Your task to perform on an android device: Go to calendar. Show me events next week Image 0: 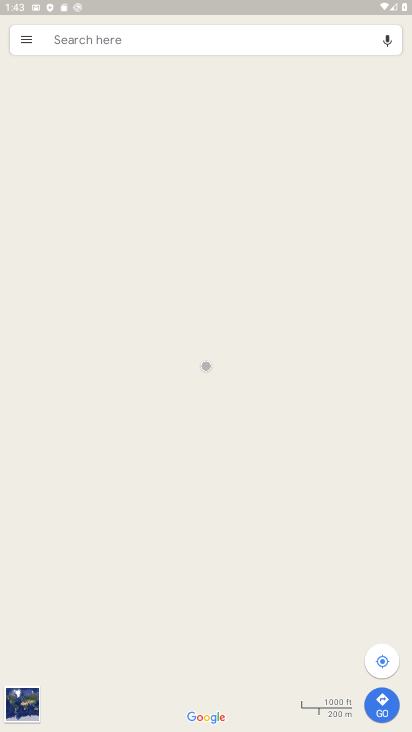
Step 0: press home button
Your task to perform on an android device: Go to calendar. Show me events next week Image 1: 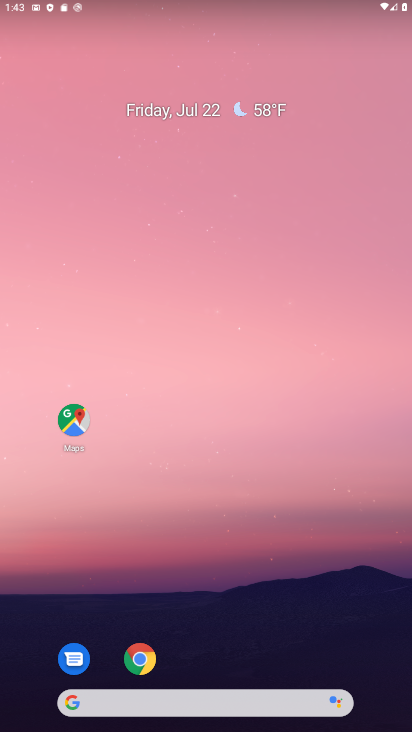
Step 1: drag from (231, 671) to (197, 101)
Your task to perform on an android device: Go to calendar. Show me events next week Image 2: 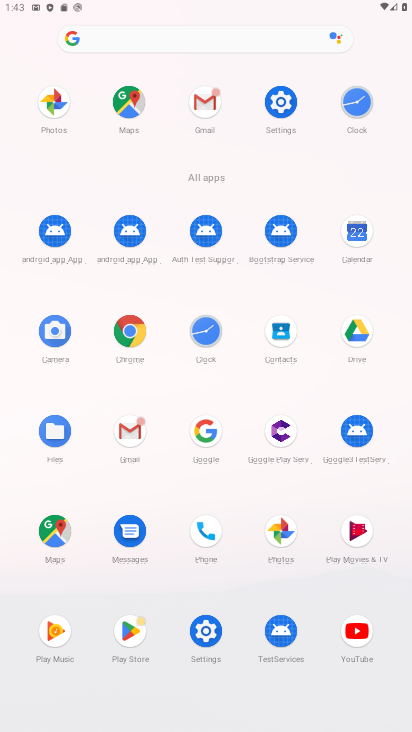
Step 2: click (353, 239)
Your task to perform on an android device: Go to calendar. Show me events next week Image 3: 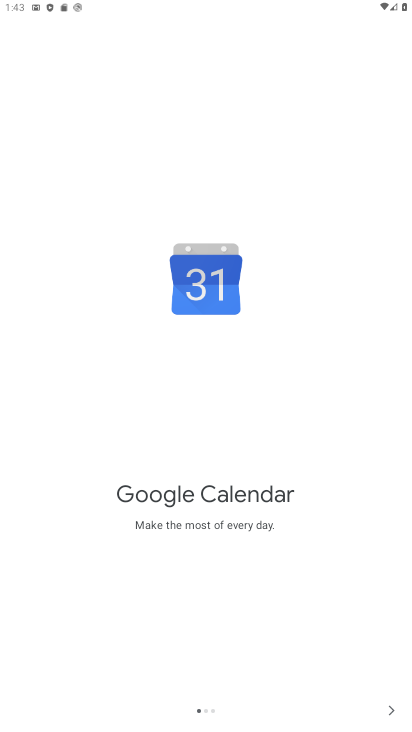
Step 3: click (379, 715)
Your task to perform on an android device: Go to calendar. Show me events next week Image 4: 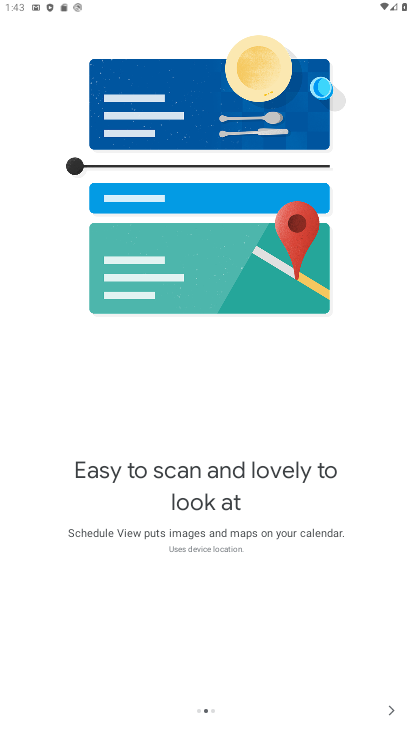
Step 4: click (378, 711)
Your task to perform on an android device: Go to calendar. Show me events next week Image 5: 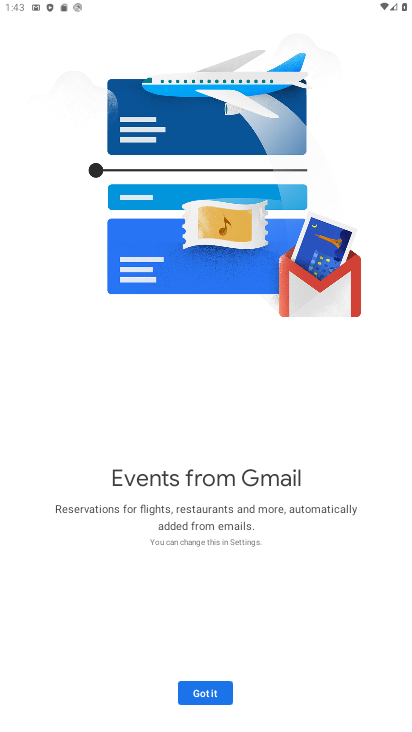
Step 5: click (213, 697)
Your task to perform on an android device: Go to calendar. Show me events next week Image 6: 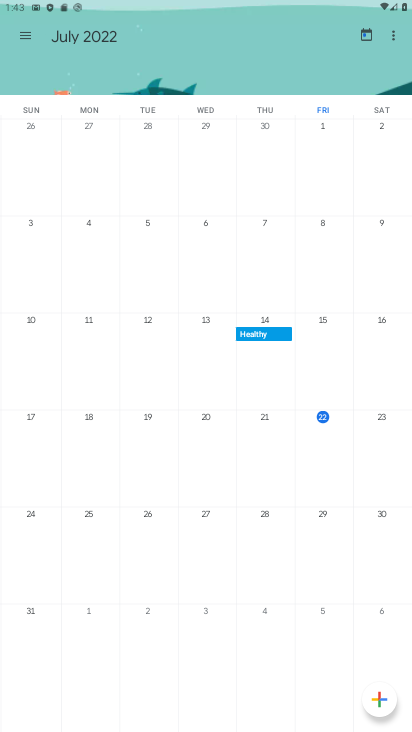
Step 6: click (25, 32)
Your task to perform on an android device: Go to calendar. Show me events next week Image 7: 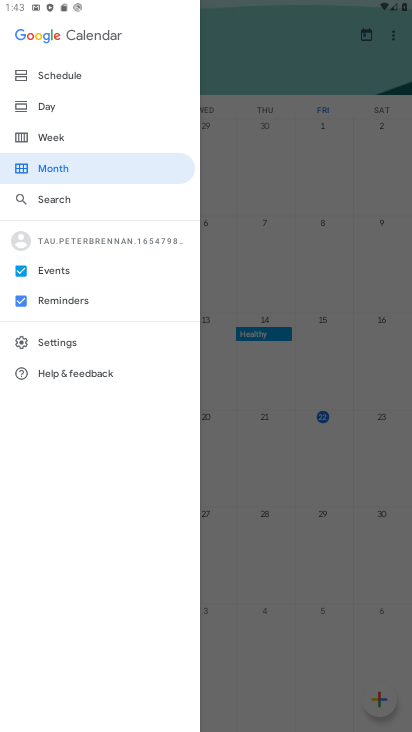
Step 7: click (62, 135)
Your task to perform on an android device: Go to calendar. Show me events next week Image 8: 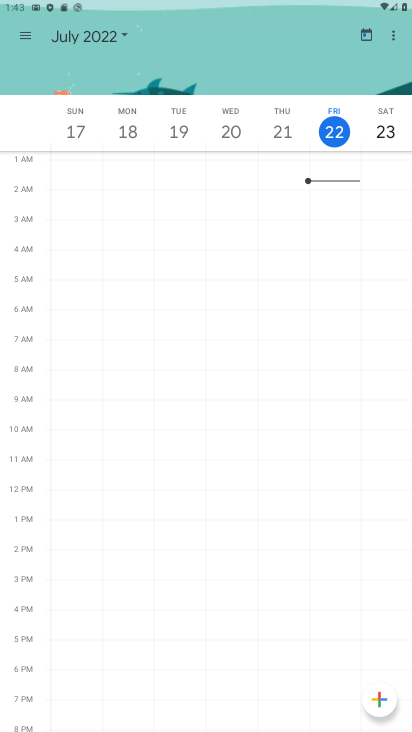
Step 8: task complete